Your task to perform on an android device: open the mobile data screen to see how much data has been used Image 0: 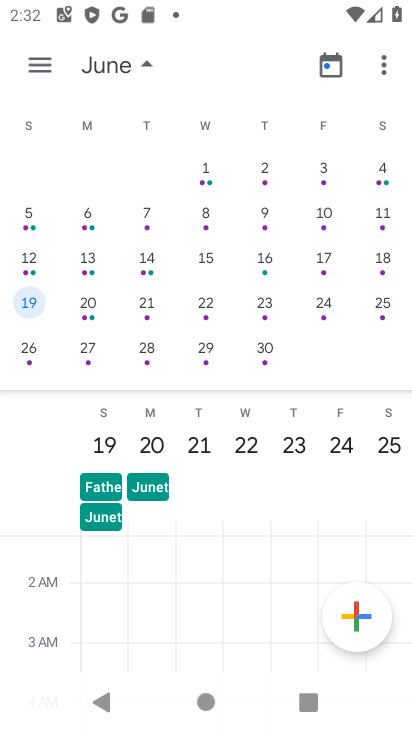
Step 0: press home button
Your task to perform on an android device: open the mobile data screen to see how much data has been used Image 1: 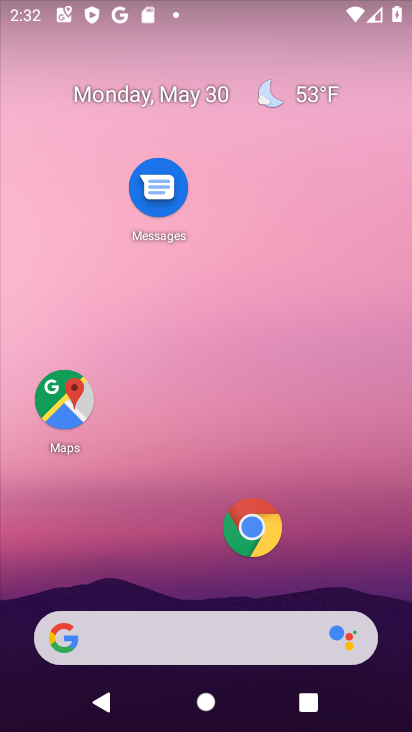
Step 1: press home button
Your task to perform on an android device: open the mobile data screen to see how much data has been used Image 2: 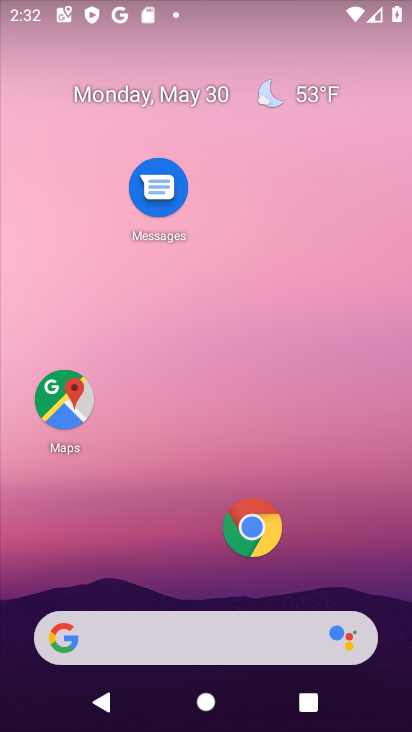
Step 2: drag from (191, 361) to (221, 138)
Your task to perform on an android device: open the mobile data screen to see how much data has been used Image 3: 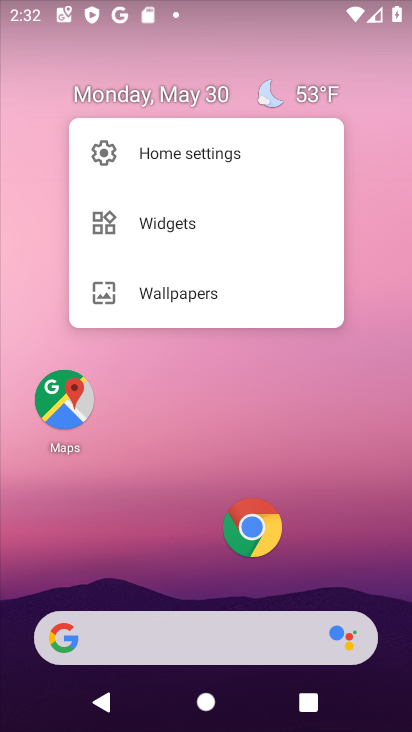
Step 3: drag from (132, 523) to (280, 35)
Your task to perform on an android device: open the mobile data screen to see how much data has been used Image 4: 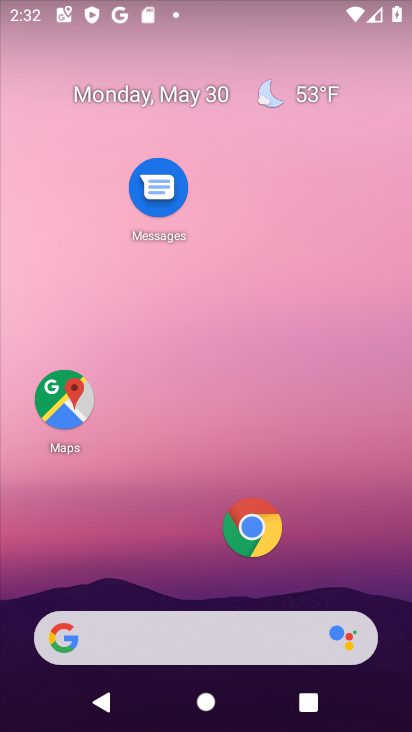
Step 4: drag from (184, 526) to (353, 38)
Your task to perform on an android device: open the mobile data screen to see how much data has been used Image 5: 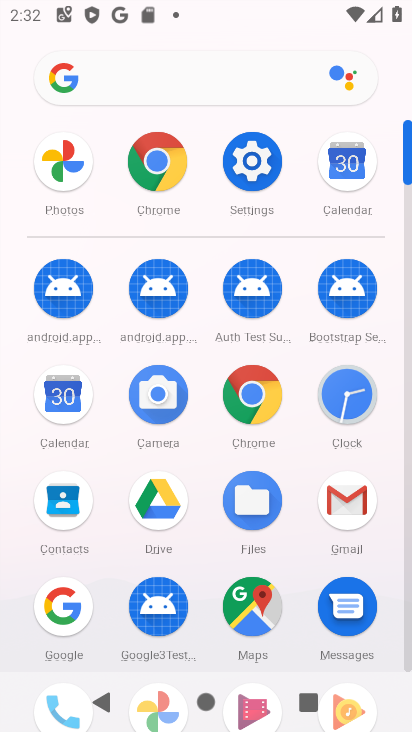
Step 5: click (265, 180)
Your task to perform on an android device: open the mobile data screen to see how much data has been used Image 6: 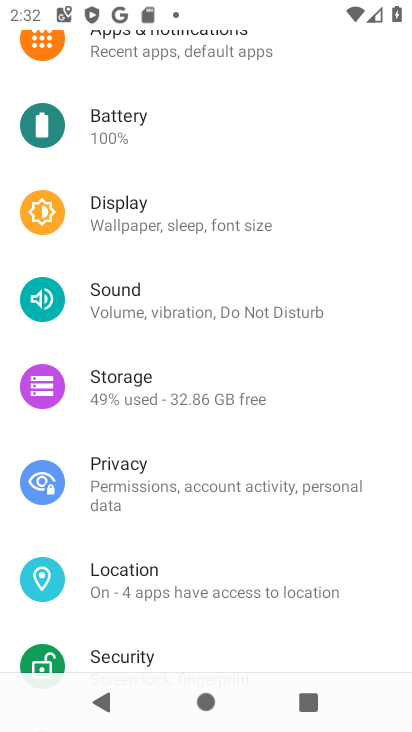
Step 6: click (250, 177)
Your task to perform on an android device: open the mobile data screen to see how much data has been used Image 7: 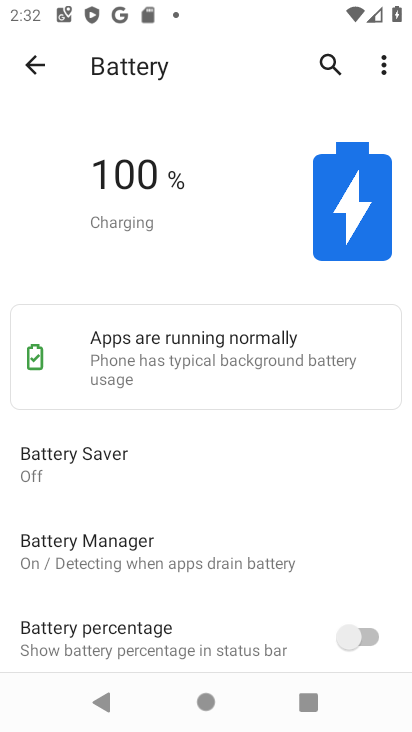
Step 7: drag from (195, 485) to (167, 316)
Your task to perform on an android device: open the mobile data screen to see how much data has been used Image 8: 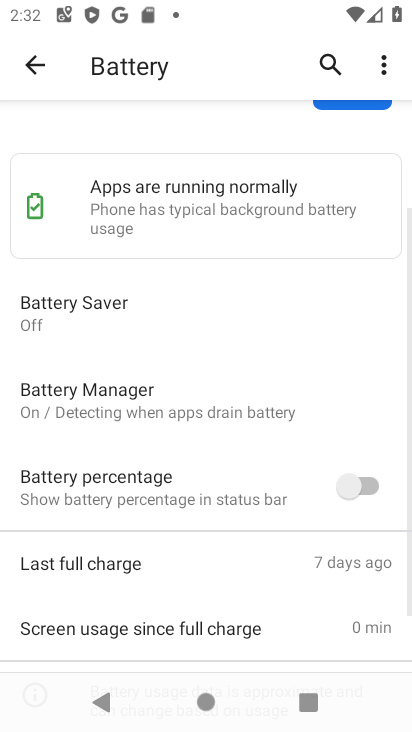
Step 8: click (33, 73)
Your task to perform on an android device: open the mobile data screen to see how much data has been used Image 9: 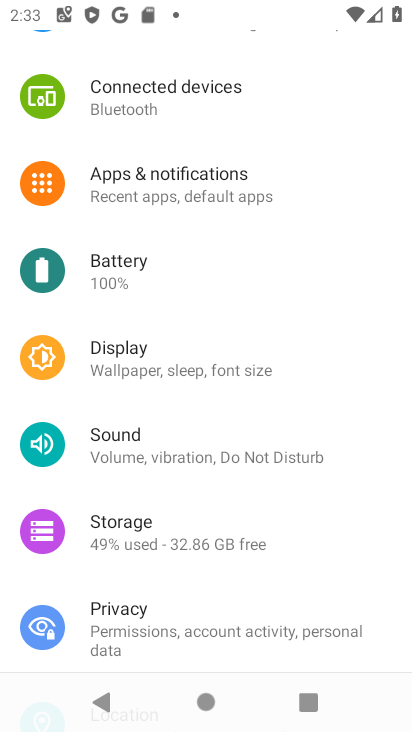
Step 9: drag from (228, 136) to (263, 514)
Your task to perform on an android device: open the mobile data screen to see how much data has been used Image 10: 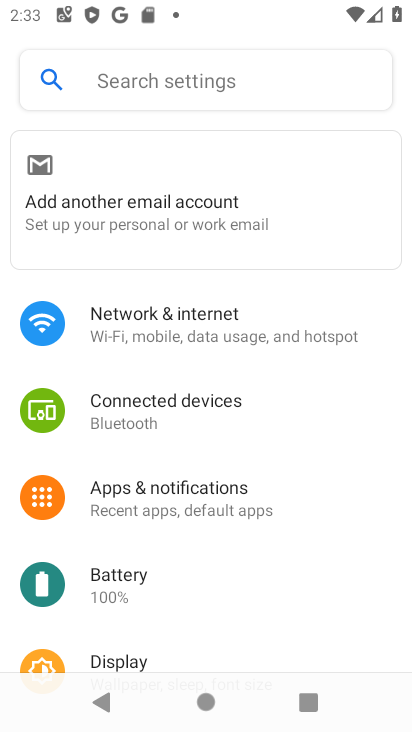
Step 10: click (198, 335)
Your task to perform on an android device: open the mobile data screen to see how much data has been used Image 11: 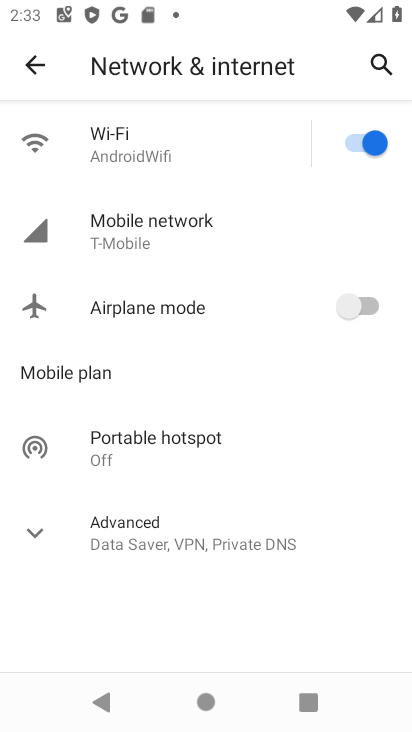
Step 11: click (186, 245)
Your task to perform on an android device: open the mobile data screen to see how much data has been used Image 12: 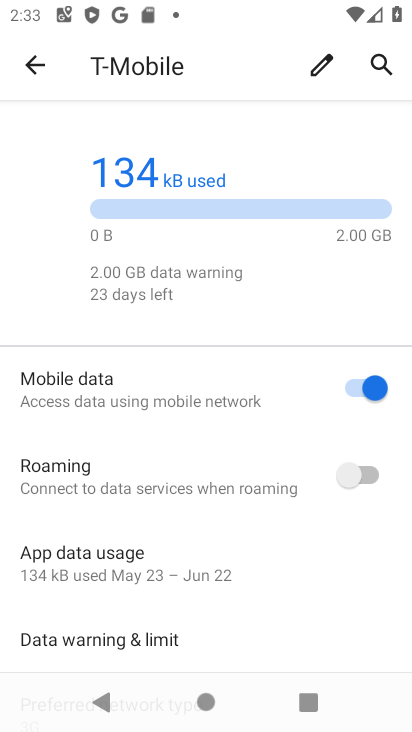
Step 12: click (190, 243)
Your task to perform on an android device: open the mobile data screen to see how much data has been used Image 13: 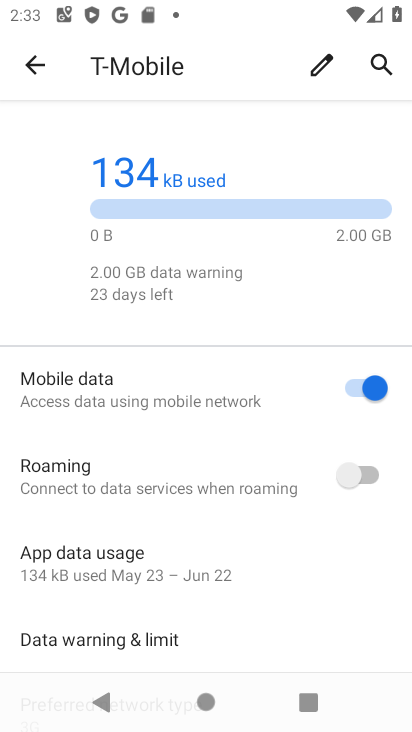
Step 13: click (209, 571)
Your task to perform on an android device: open the mobile data screen to see how much data has been used Image 14: 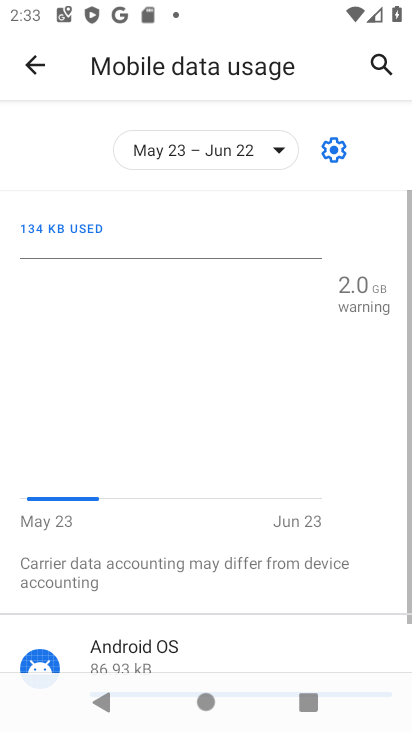
Step 14: task complete